Your task to perform on an android device: set an alarm Image 0: 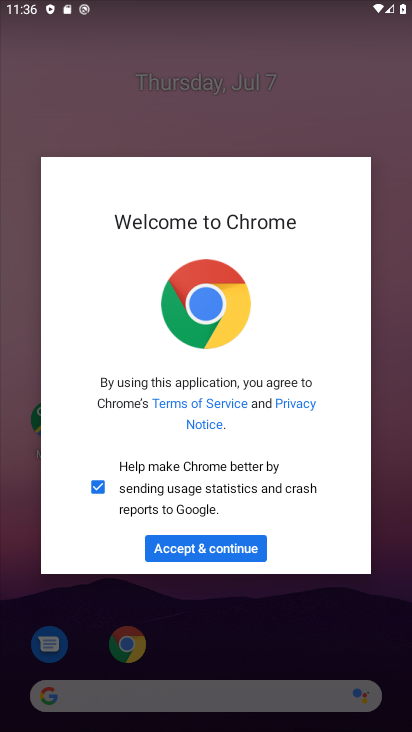
Step 0: press home button
Your task to perform on an android device: set an alarm Image 1: 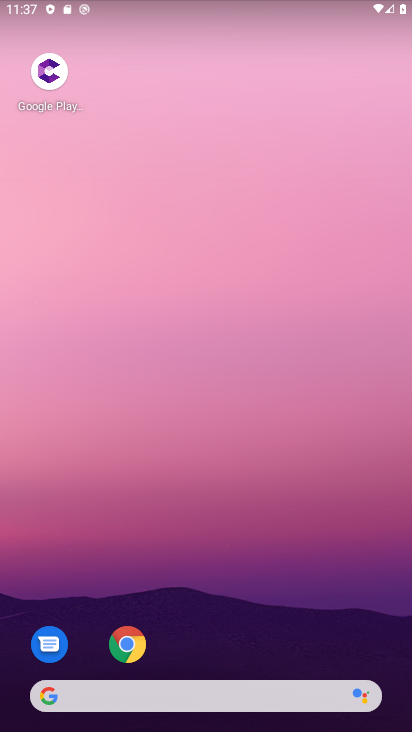
Step 1: drag from (314, 647) to (354, 0)
Your task to perform on an android device: set an alarm Image 2: 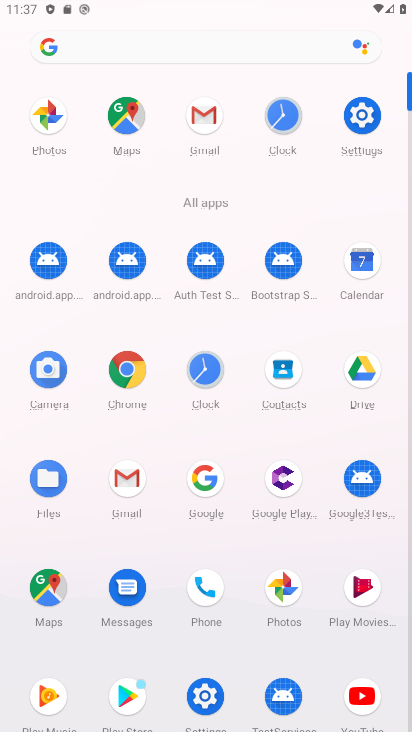
Step 2: click (205, 397)
Your task to perform on an android device: set an alarm Image 3: 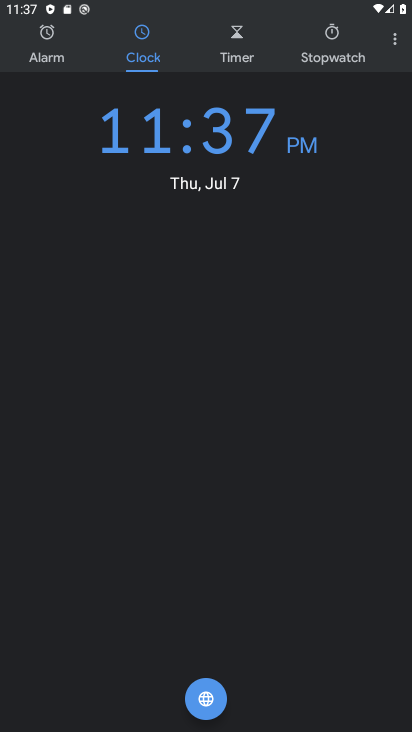
Step 3: click (33, 47)
Your task to perform on an android device: set an alarm Image 4: 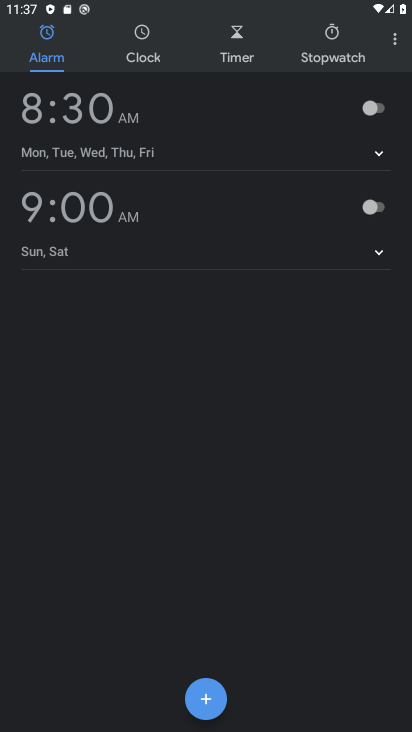
Step 4: click (375, 115)
Your task to perform on an android device: set an alarm Image 5: 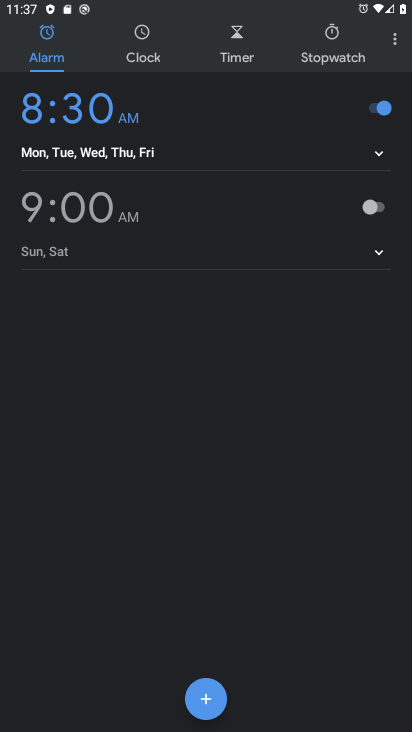
Step 5: task complete